Your task to perform on an android device: Go to settings Image 0: 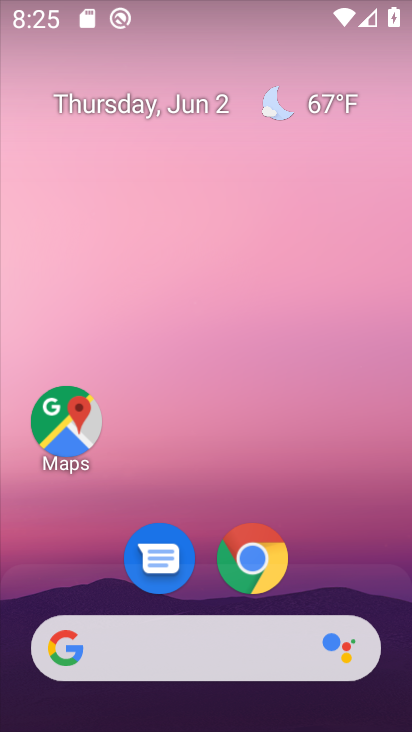
Step 0: drag from (343, 575) to (223, 171)
Your task to perform on an android device: Go to settings Image 1: 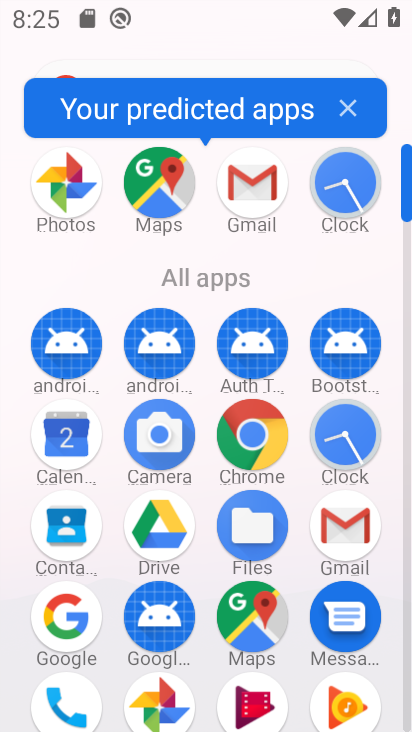
Step 1: drag from (197, 576) to (199, 220)
Your task to perform on an android device: Go to settings Image 2: 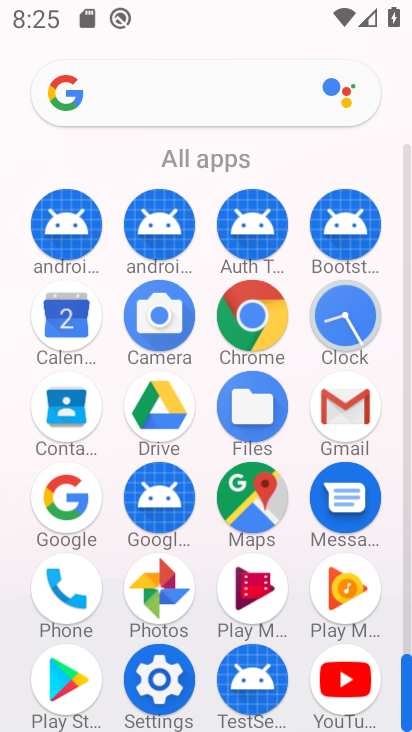
Step 2: click (158, 674)
Your task to perform on an android device: Go to settings Image 3: 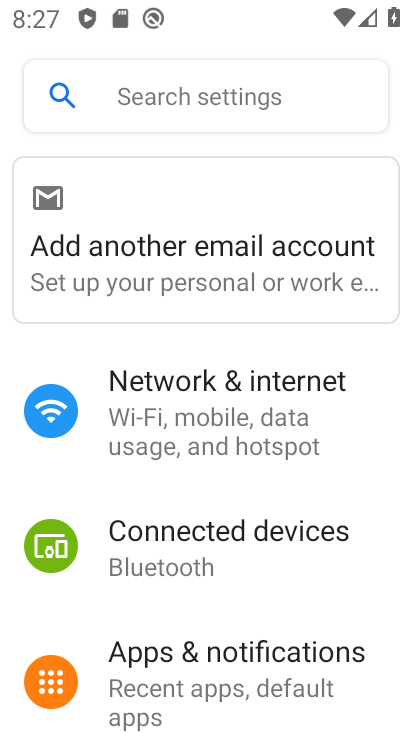
Step 3: task complete